Your task to perform on an android device: turn on bluetooth scan Image 0: 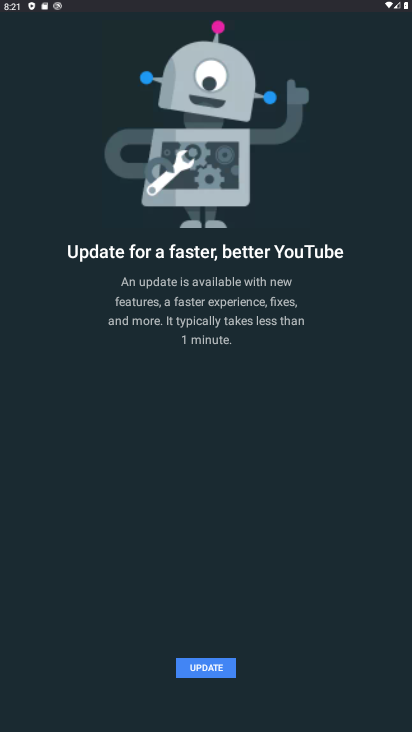
Step 0: press home button
Your task to perform on an android device: turn on bluetooth scan Image 1: 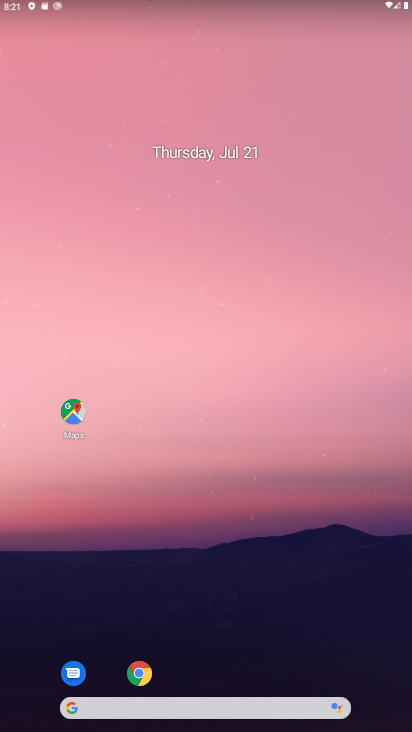
Step 1: drag from (215, 665) to (215, 202)
Your task to perform on an android device: turn on bluetooth scan Image 2: 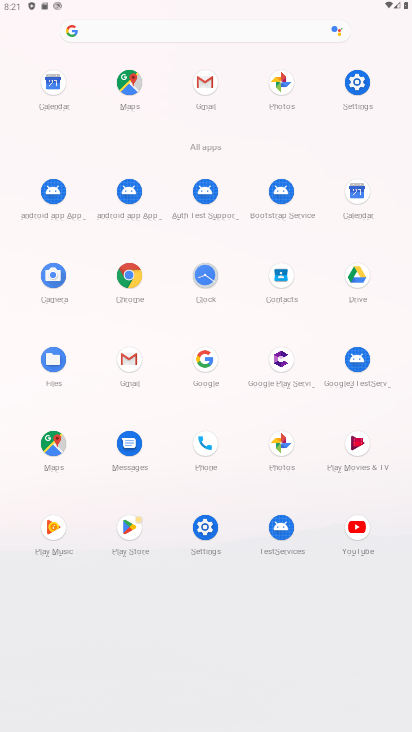
Step 2: click (361, 78)
Your task to perform on an android device: turn on bluetooth scan Image 3: 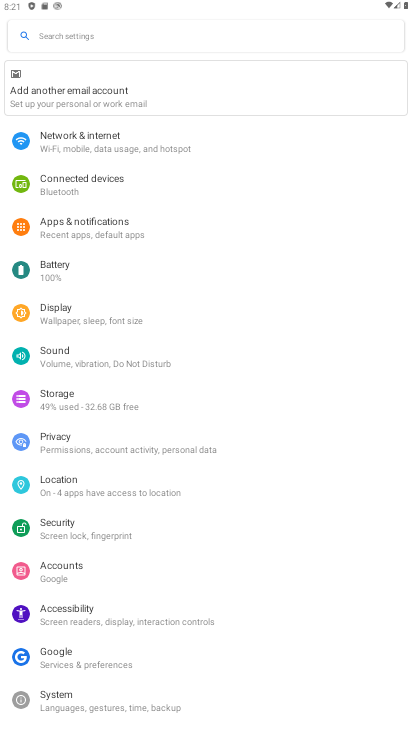
Step 3: click (65, 486)
Your task to perform on an android device: turn on bluetooth scan Image 4: 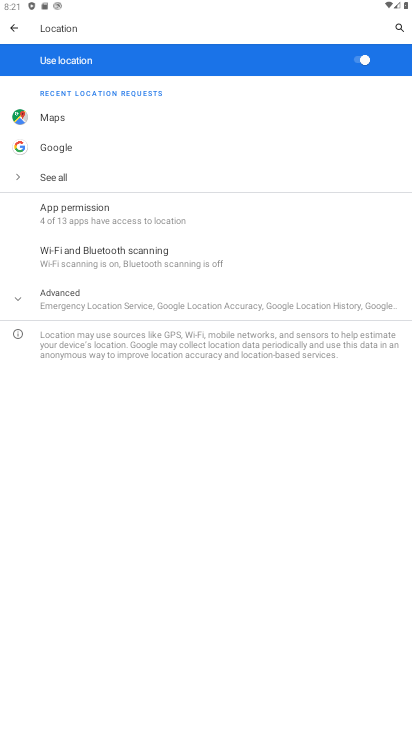
Step 4: click (116, 250)
Your task to perform on an android device: turn on bluetooth scan Image 5: 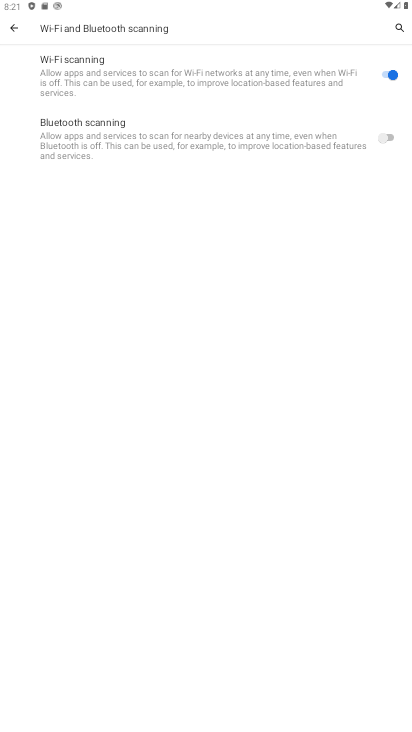
Step 5: click (392, 138)
Your task to perform on an android device: turn on bluetooth scan Image 6: 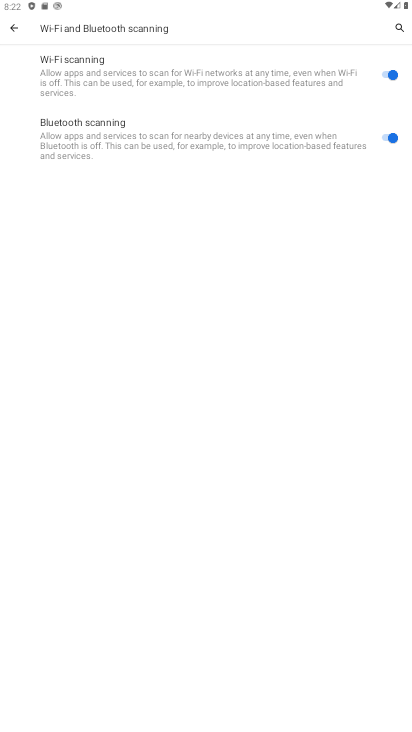
Step 6: task complete